Your task to perform on an android device: Open Google Maps Image 0: 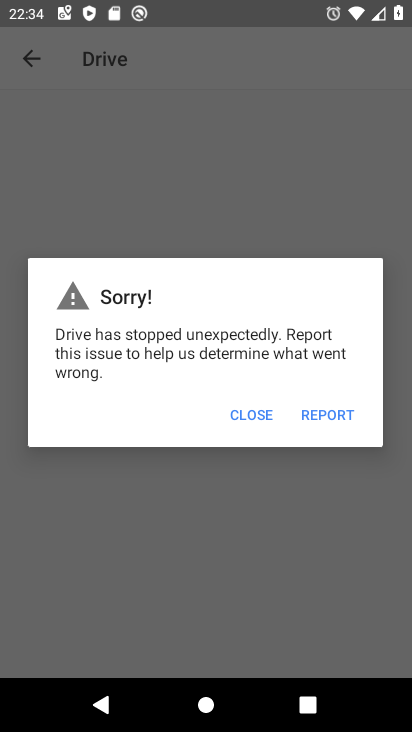
Step 0: press home button
Your task to perform on an android device: Open Google Maps Image 1: 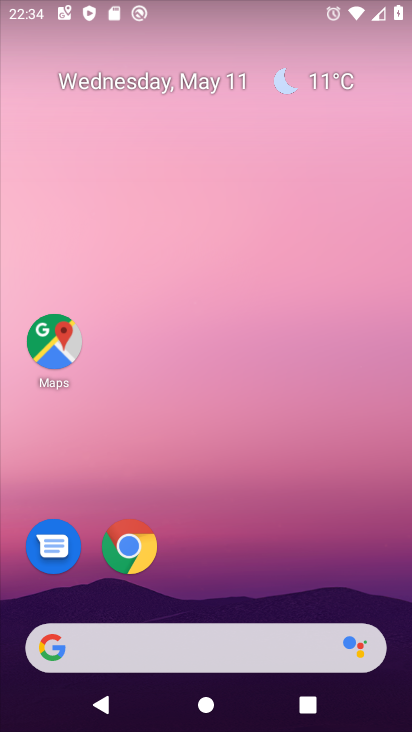
Step 1: click (54, 336)
Your task to perform on an android device: Open Google Maps Image 2: 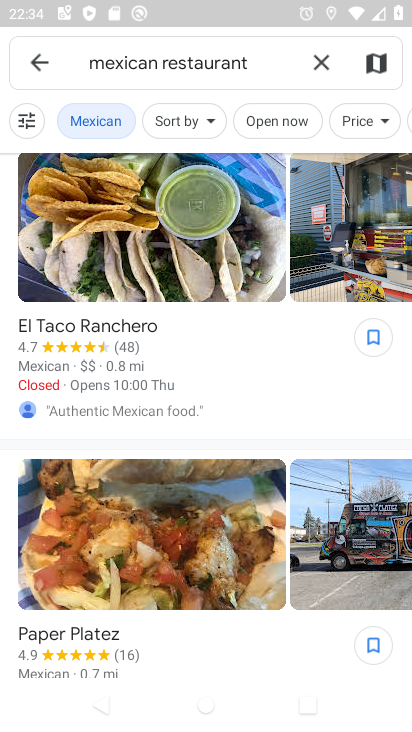
Step 2: click (318, 58)
Your task to perform on an android device: Open Google Maps Image 3: 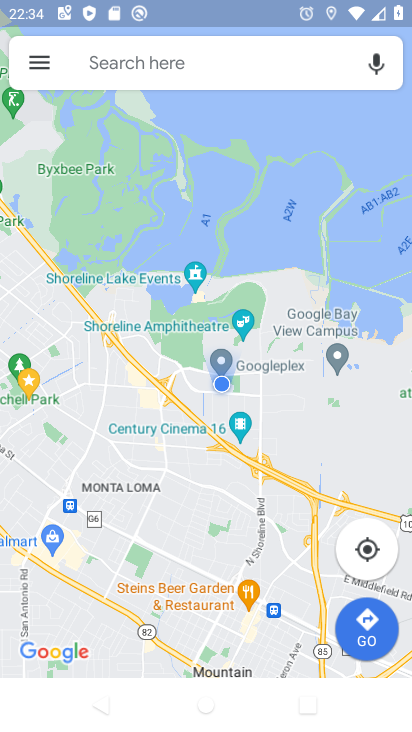
Step 3: task complete